Your task to perform on an android device: open sync settings in chrome Image 0: 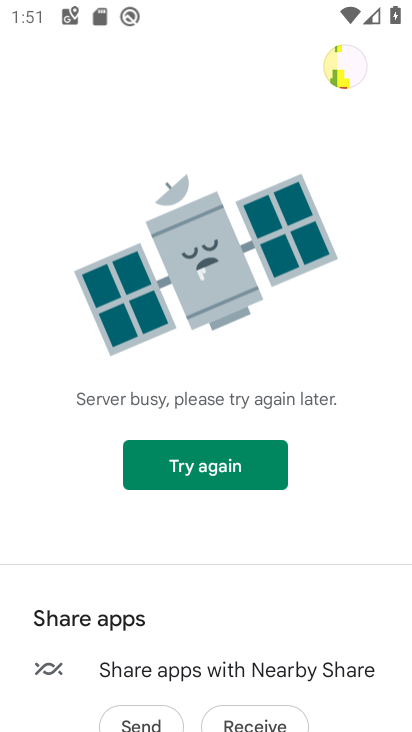
Step 0: press home button
Your task to perform on an android device: open sync settings in chrome Image 1: 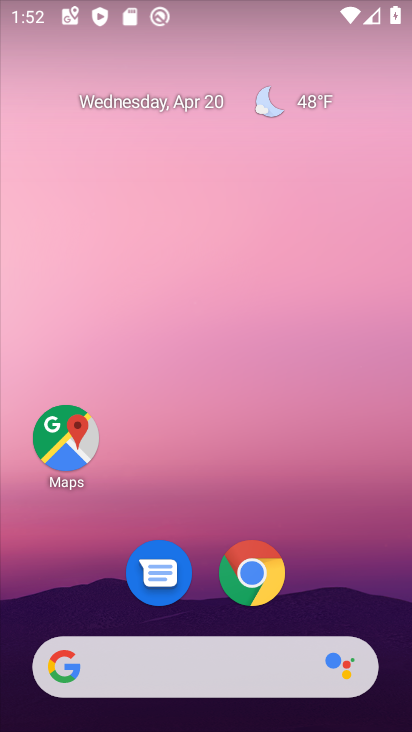
Step 1: drag from (185, 649) to (297, 86)
Your task to perform on an android device: open sync settings in chrome Image 2: 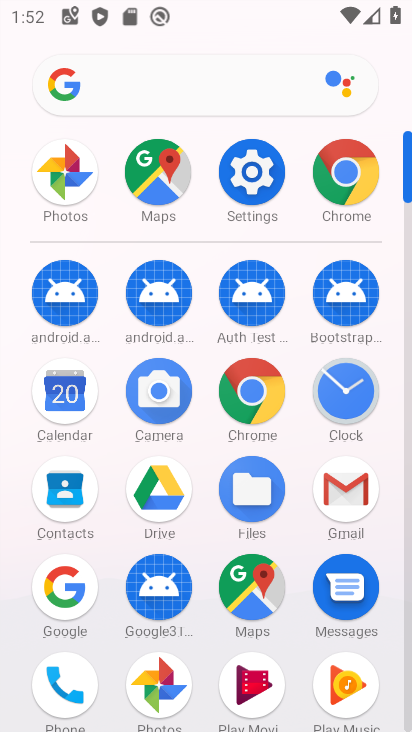
Step 2: click (335, 195)
Your task to perform on an android device: open sync settings in chrome Image 3: 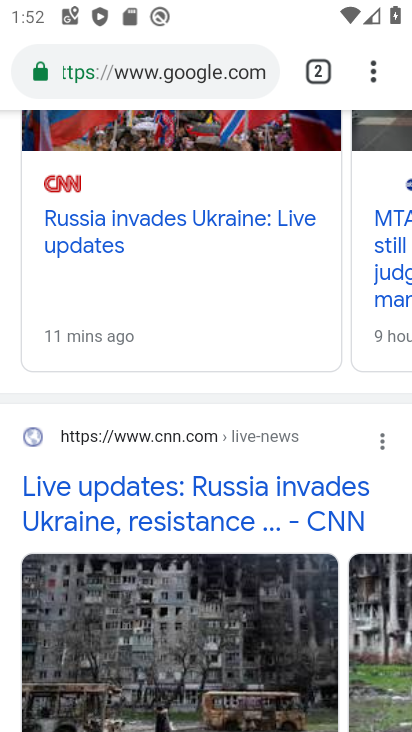
Step 3: click (376, 78)
Your task to perform on an android device: open sync settings in chrome Image 4: 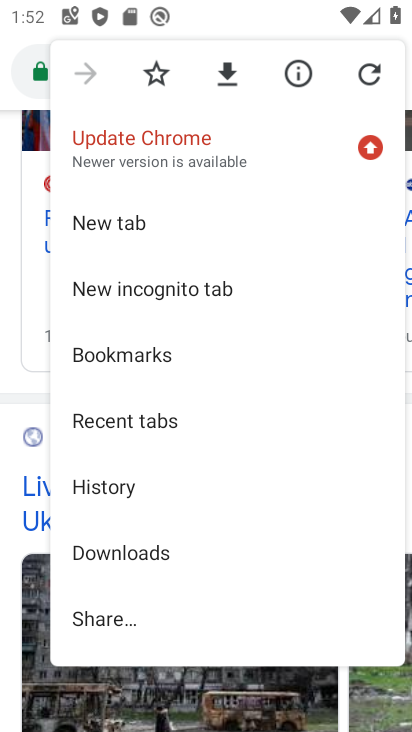
Step 4: drag from (152, 560) to (296, 130)
Your task to perform on an android device: open sync settings in chrome Image 5: 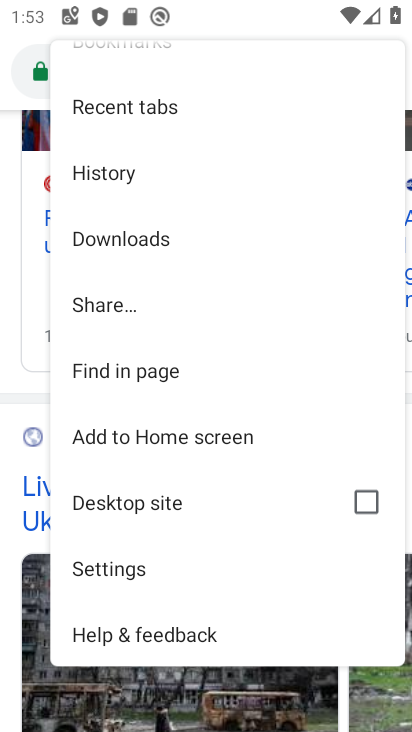
Step 5: click (125, 559)
Your task to perform on an android device: open sync settings in chrome Image 6: 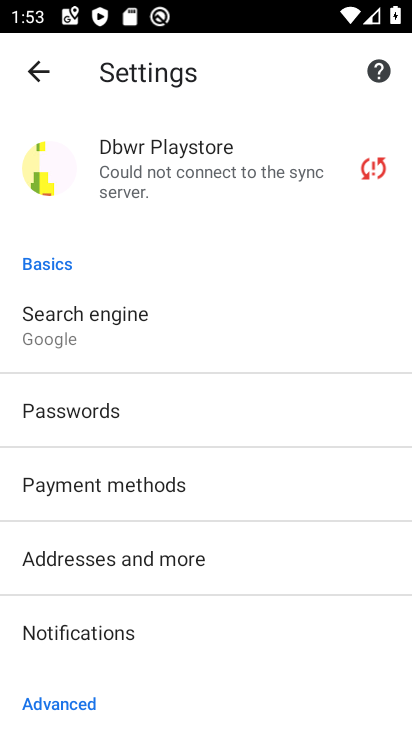
Step 6: click (206, 183)
Your task to perform on an android device: open sync settings in chrome Image 7: 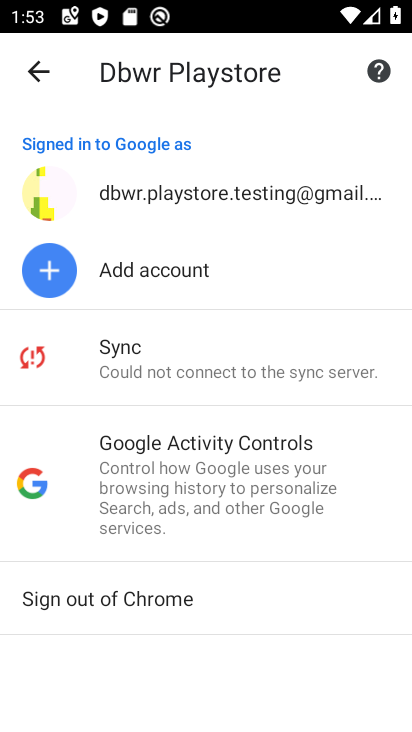
Step 7: click (133, 352)
Your task to perform on an android device: open sync settings in chrome Image 8: 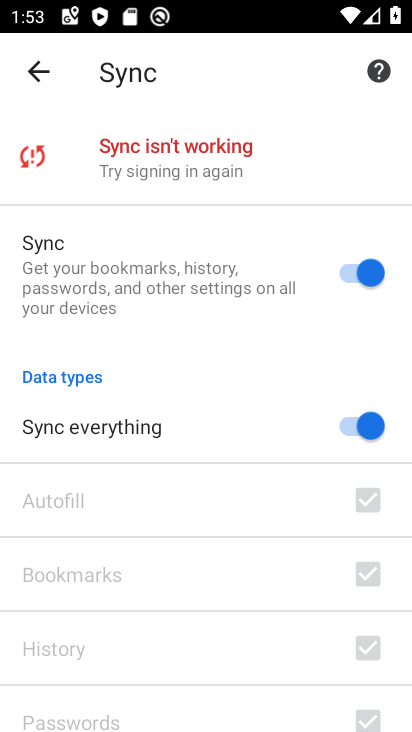
Step 8: task complete